Your task to perform on an android device: Go to Amazon Image 0: 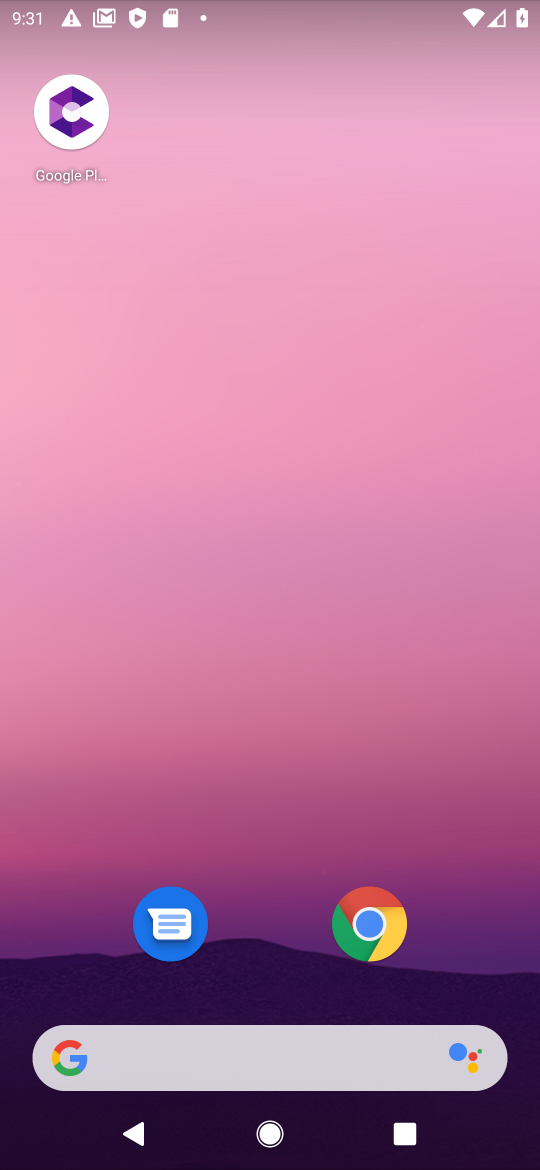
Step 0: press home button
Your task to perform on an android device: Go to Amazon Image 1: 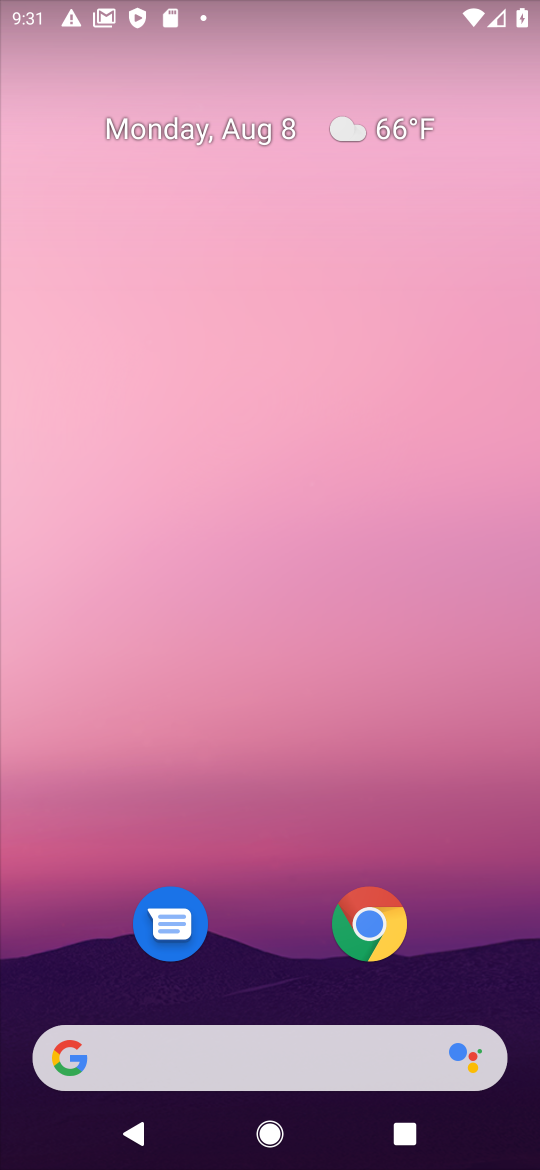
Step 1: click (360, 928)
Your task to perform on an android device: Go to Amazon Image 2: 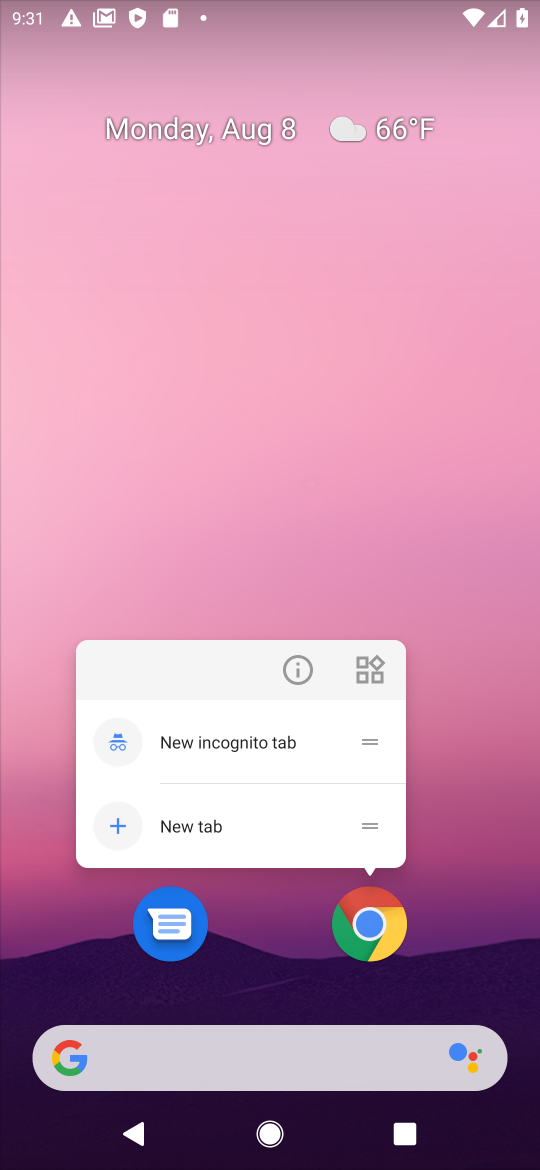
Step 2: click (360, 928)
Your task to perform on an android device: Go to Amazon Image 3: 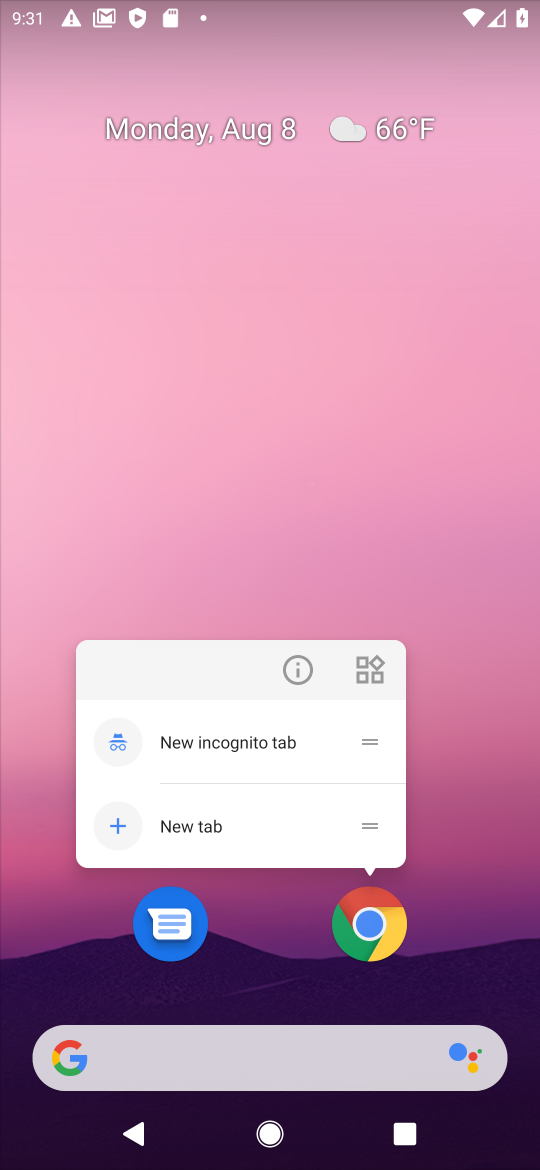
Step 3: drag from (452, 953) to (473, 77)
Your task to perform on an android device: Go to Amazon Image 4: 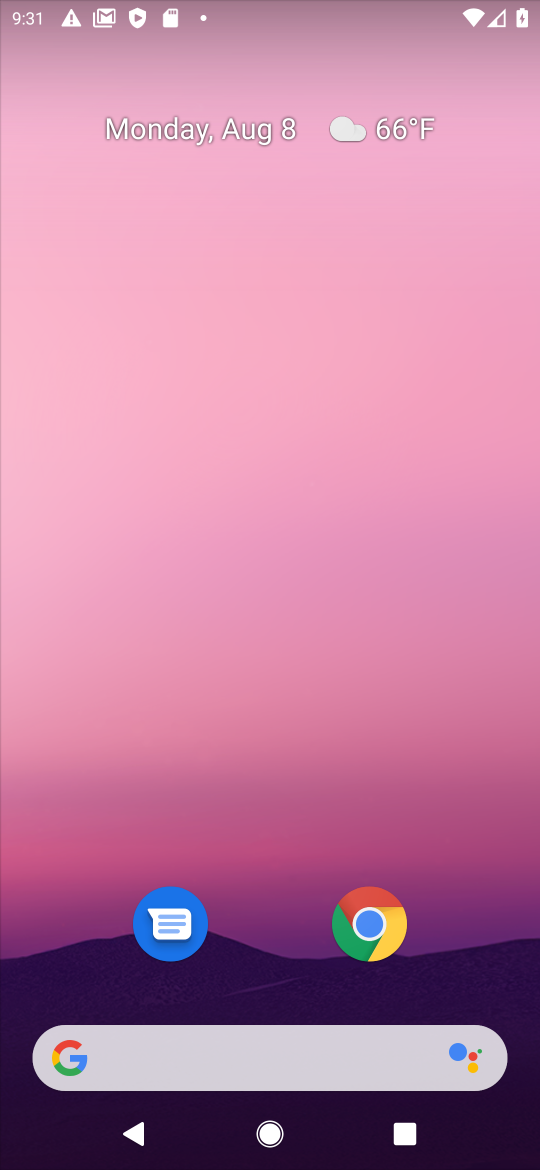
Step 4: drag from (438, 866) to (472, 134)
Your task to perform on an android device: Go to Amazon Image 5: 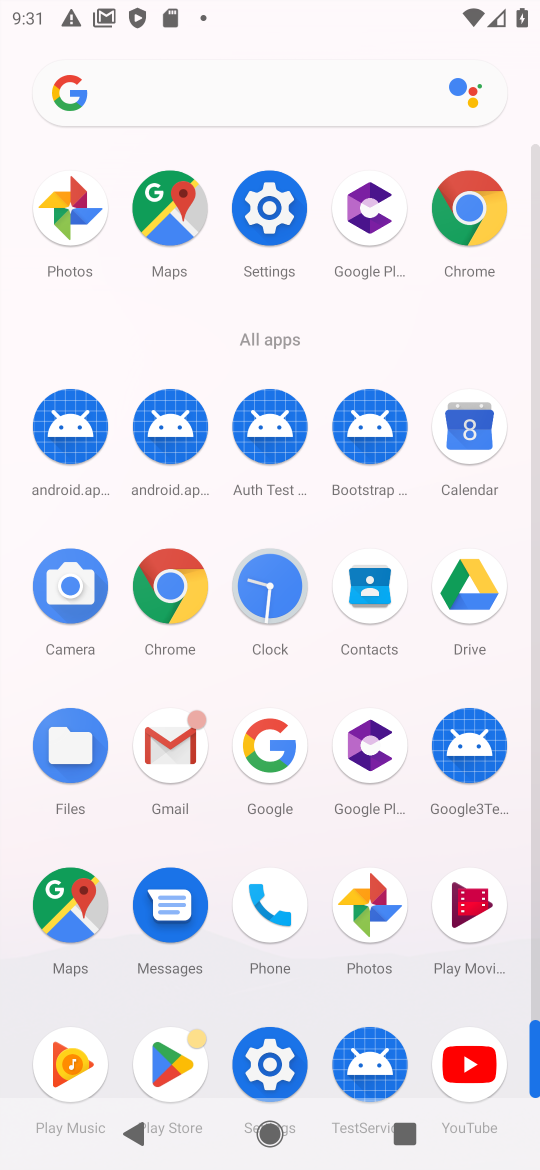
Step 5: click (175, 590)
Your task to perform on an android device: Go to Amazon Image 6: 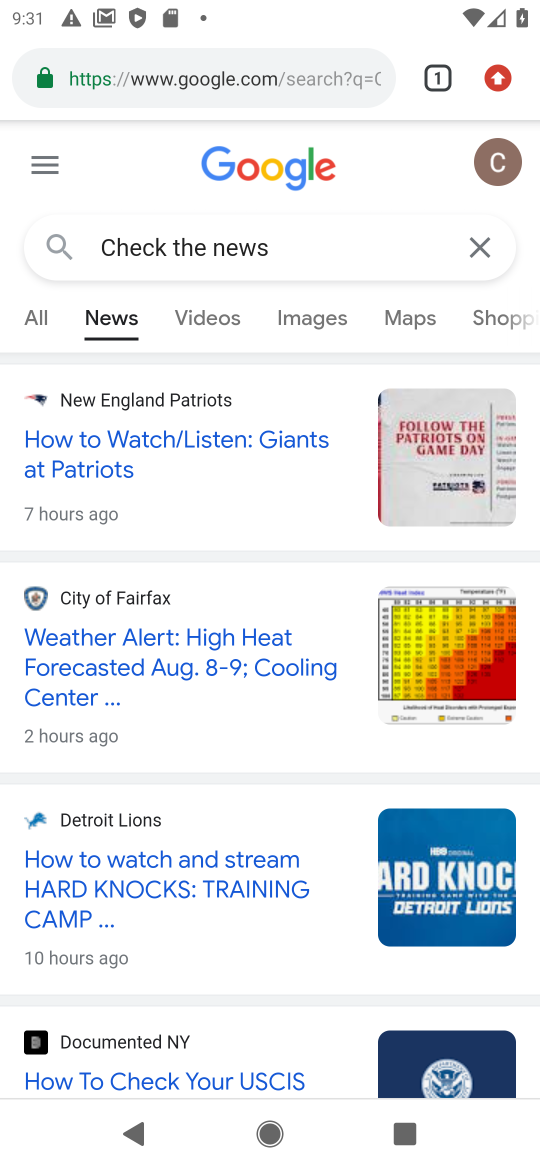
Step 6: click (483, 245)
Your task to perform on an android device: Go to Amazon Image 7: 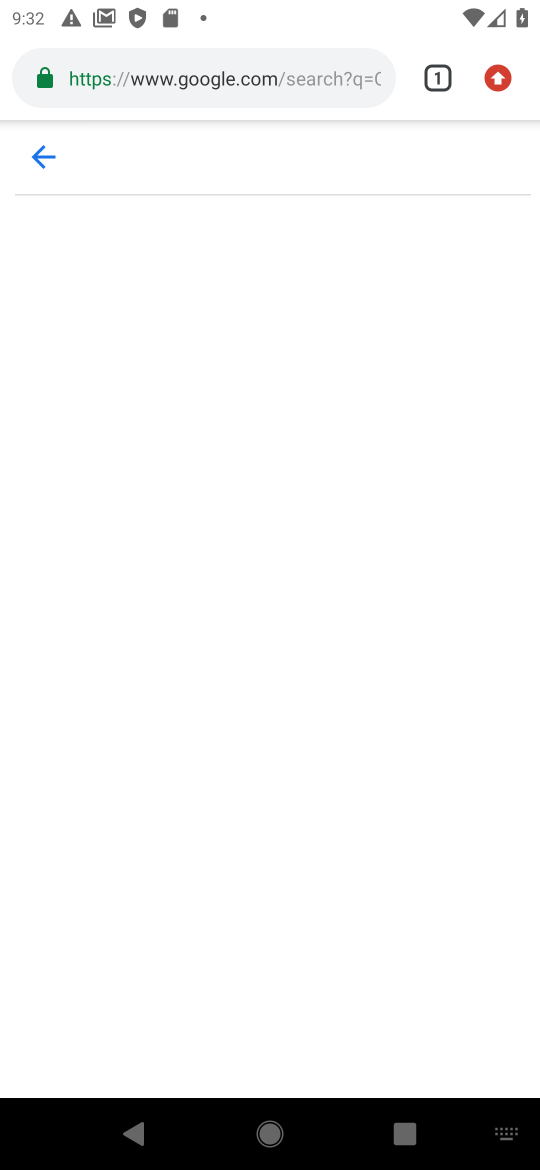
Step 7: type "Check the news"
Your task to perform on an android device: Go to Amazon Image 8: 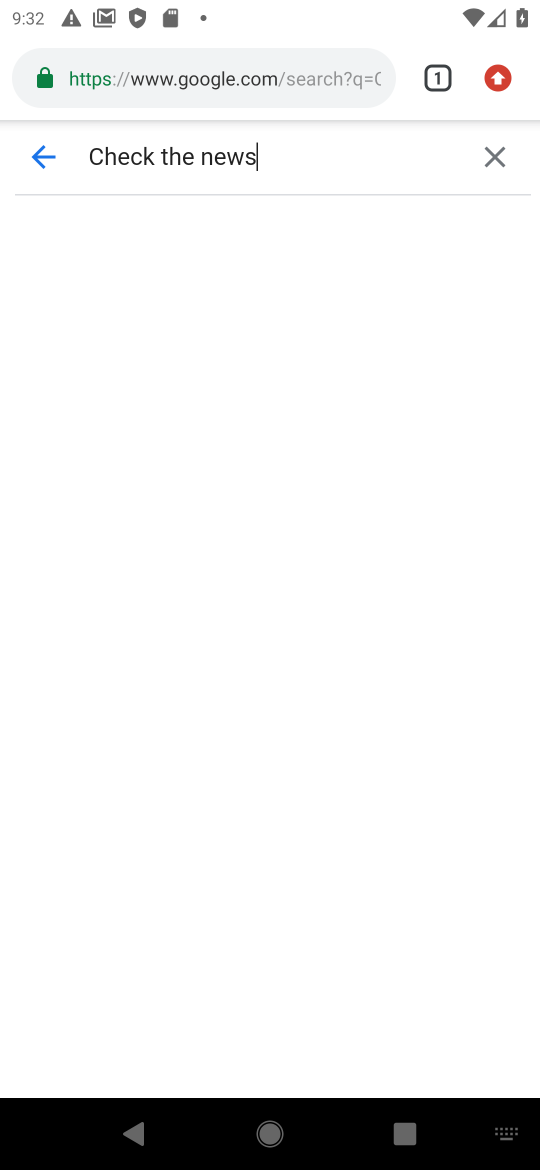
Step 8: click (346, 71)
Your task to perform on an android device: Go to Amazon Image 9: 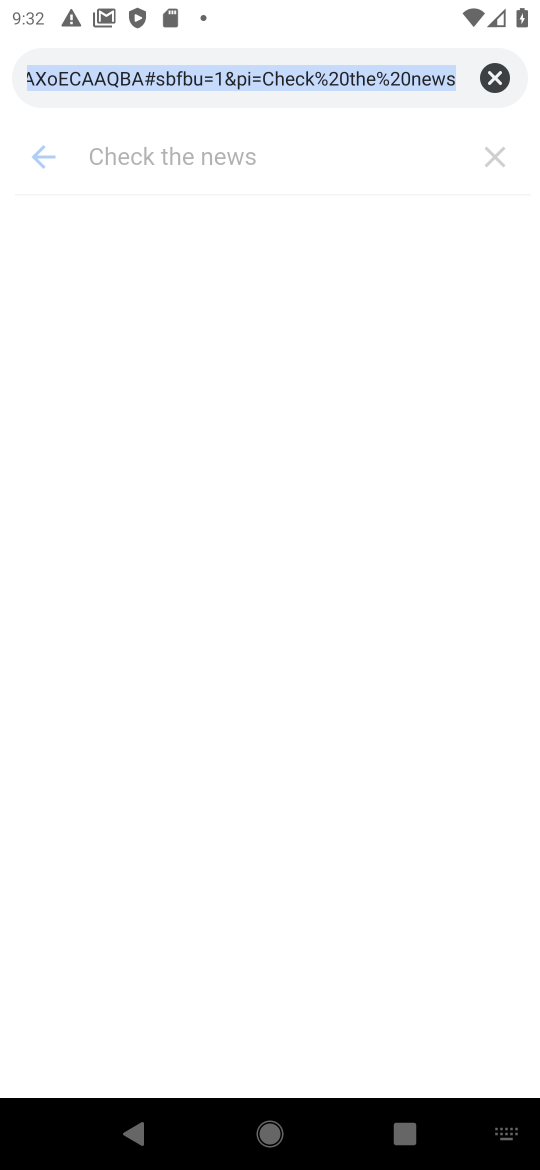
Step 9: type "Check the news"
Your task to perform on an android device: Go to Amazon Image 10: 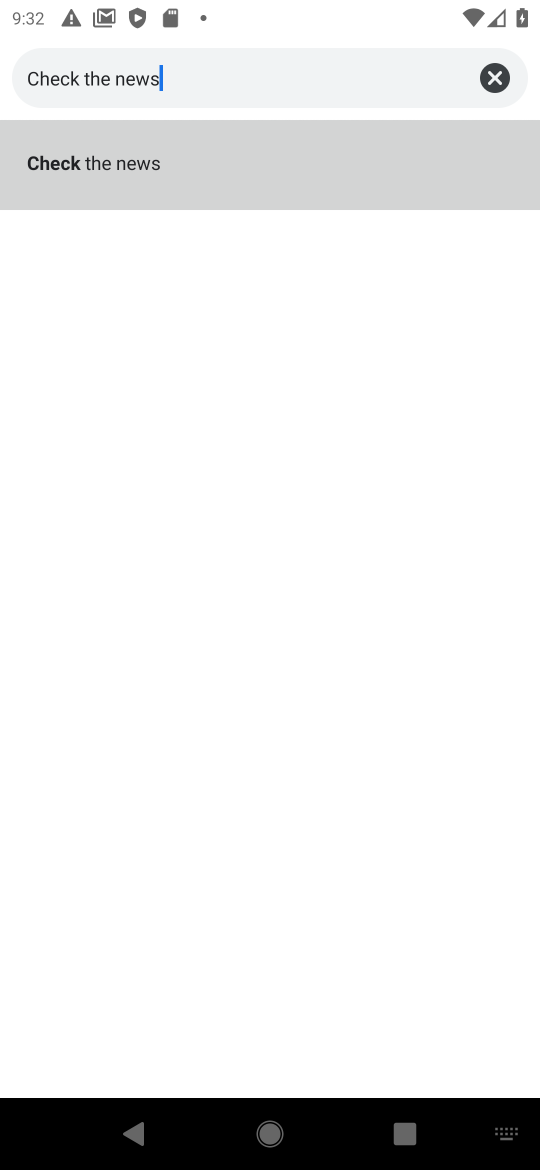
Step 10: click (85, 159)
Your task to perform on an android device: Go to Amazon Image 11: 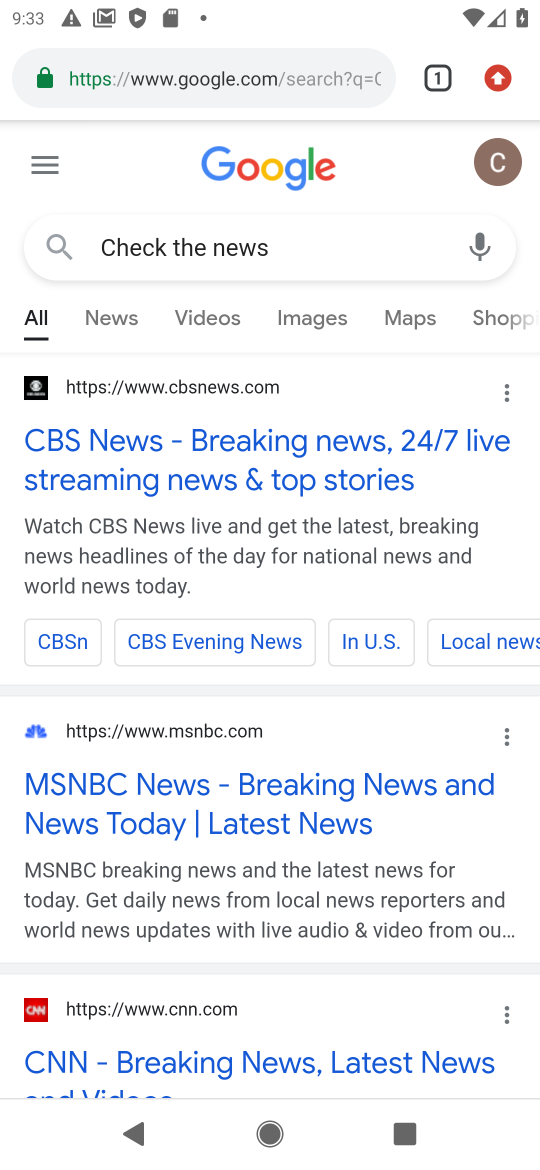
Step 11: press home button
Your task to perform on an android device: Go to Amazon Image 12: 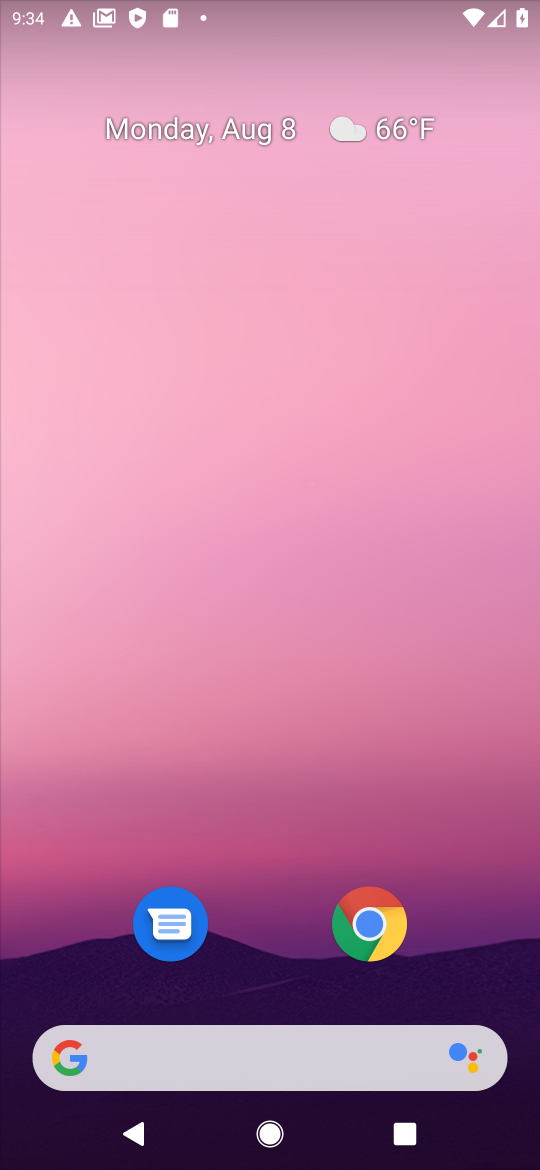
Step 12: drag from (286, 972) to (353, 114)
Your task to perform on an android device: Go to Amazon Image 13: 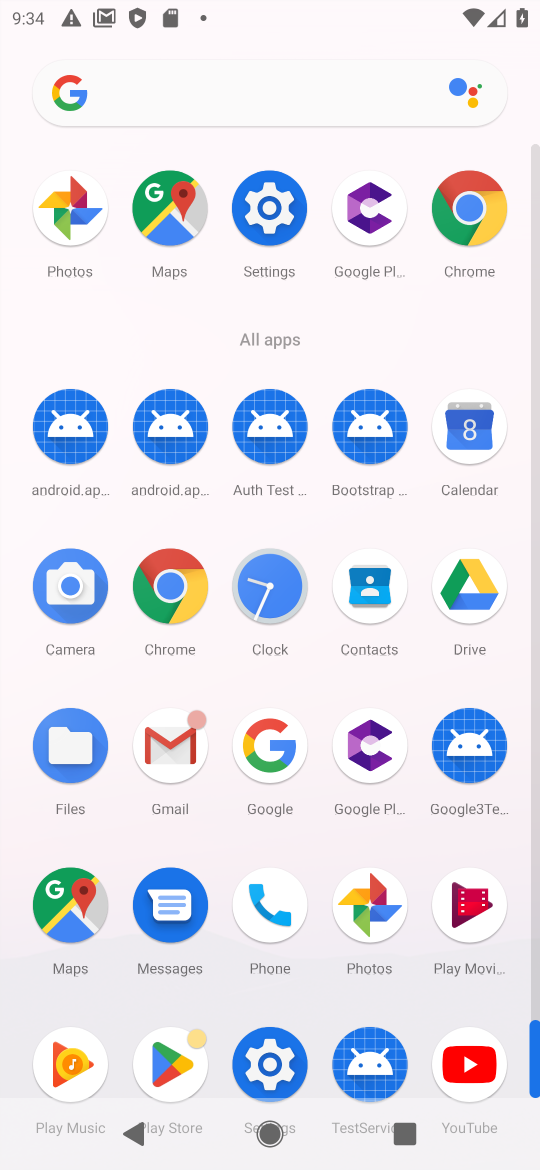
Step 13: click (172, 581)
Your task to perform on an android device: Go to Amazon Image 14: 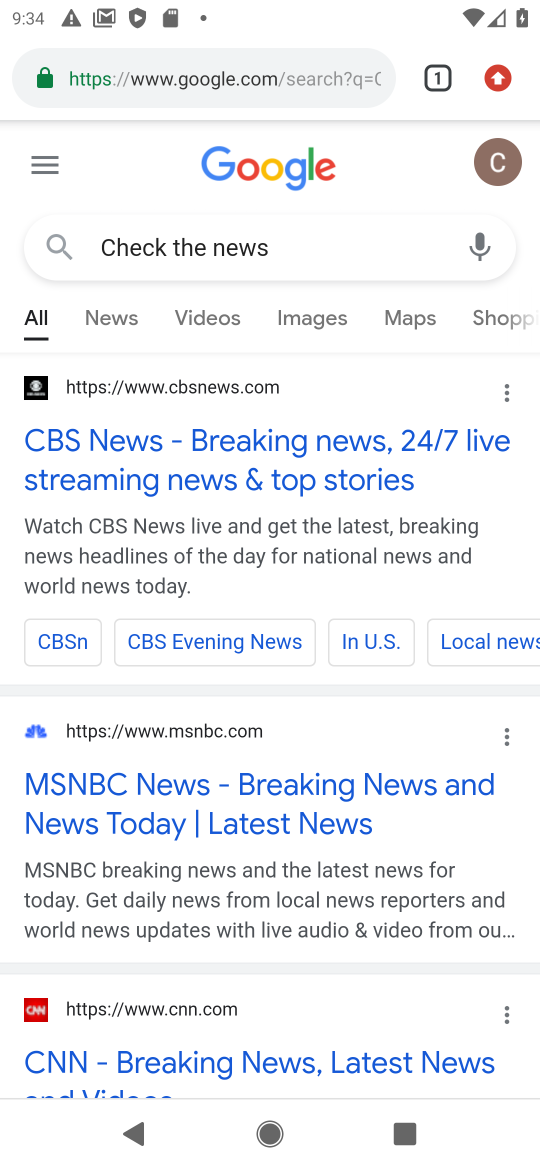
Step 14: click (199, 85)
Your task to perform on an android device: Go to Amazon Image 15: 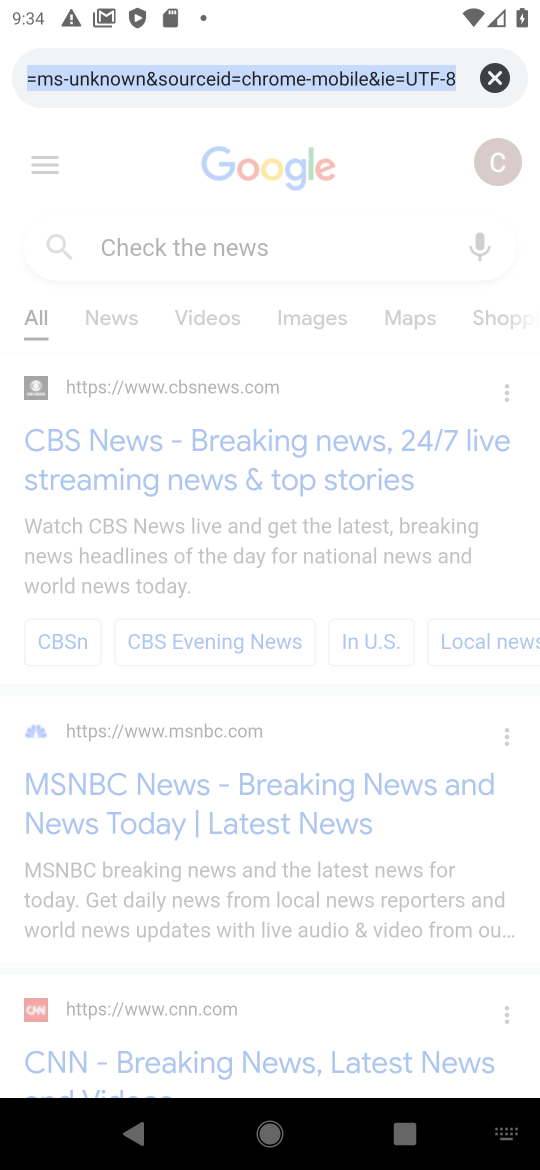
Step 15: type " Amazon"
Your task to perform on an android device: Go to Amazon Image 16: 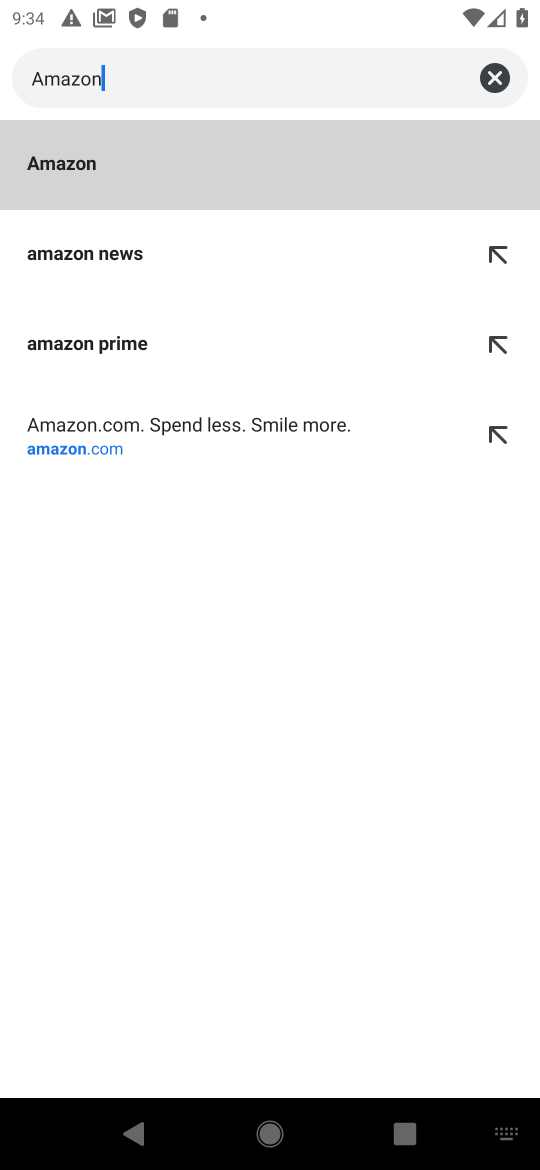
Step 16: click (62, 161)
Your task to perform on an android device: Go to Amazon Image 17: 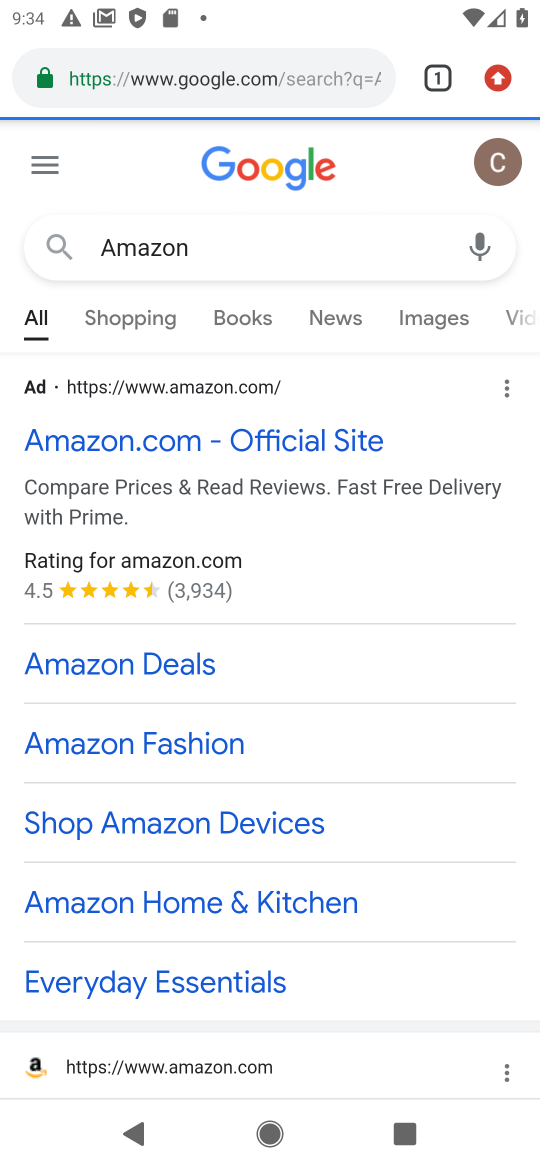
Step 17: task complete